Your task to perform on an android device: Open wifi settings Image 0: 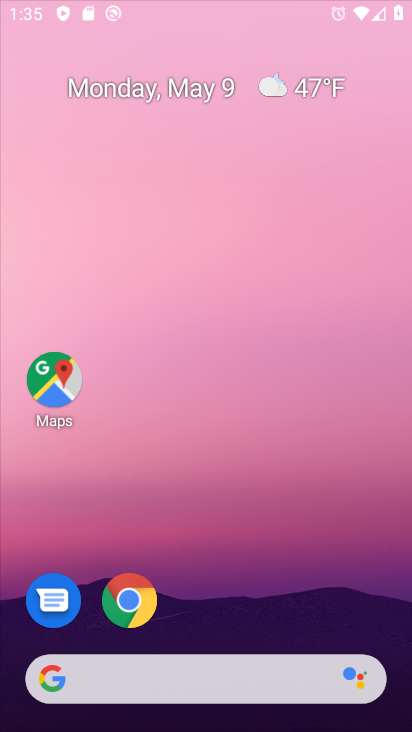
Step 0: click (108, 580)
Your task to perform on an android device: Open wifi settings Image 1: 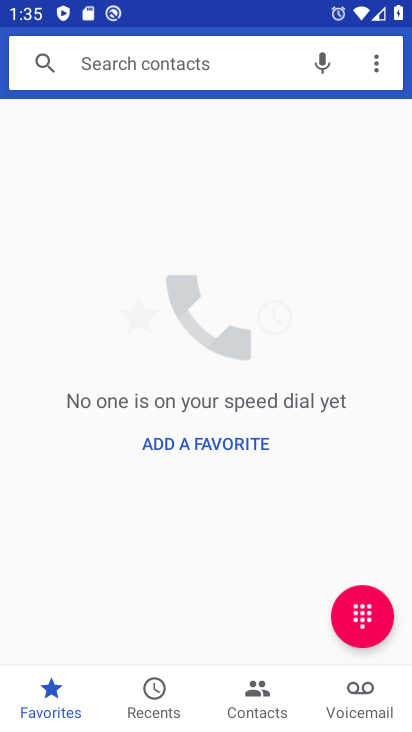
Step 1: press home button
Your task to perform on an android device: Open wifi settings Image 2: 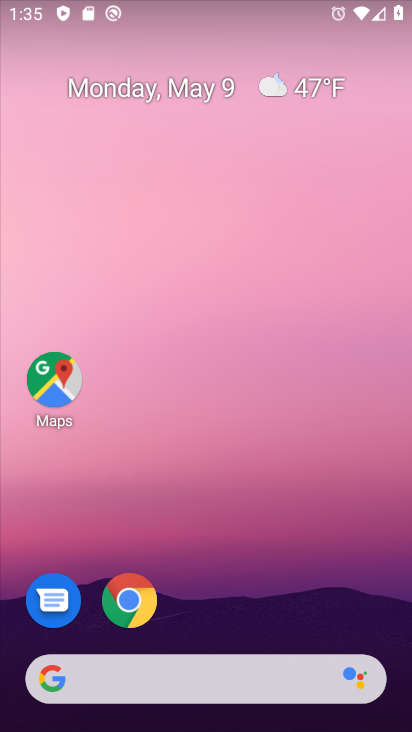
Step 2: drag from (195, 667) to (221, 147)
Your task to perform on an android device: Open wifi settings Image 3: 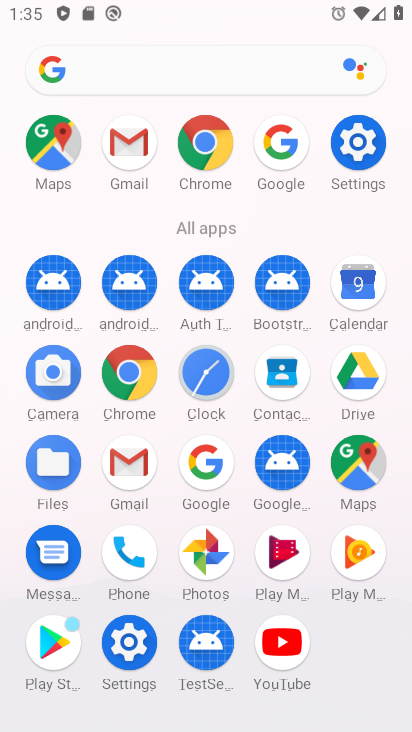
Step 3: click (345, 151)
Your task to perform on an android device: Open wifi settings Image 4: 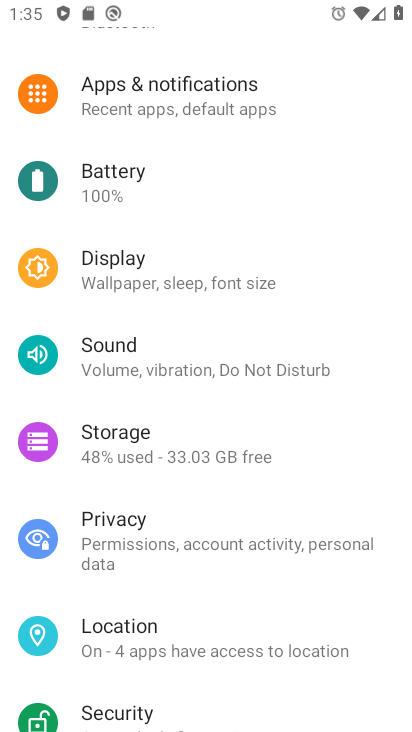
Step 4: drag from (137, 93) to (215, 383)
Your task to perform on an android device: Open wifi settings Image 5: 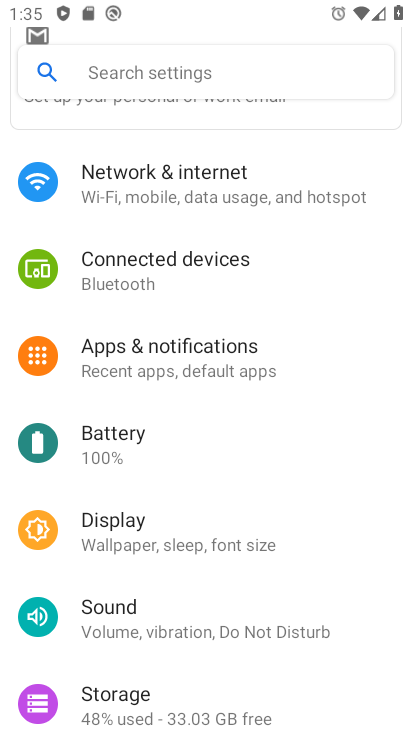
Step 5: click (197, 189)
Your task to perform on an android device: Open wifi settings Image 6: 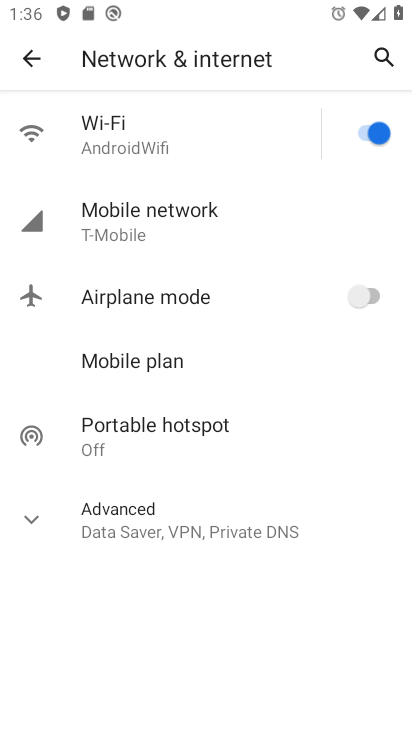
Step 6: click (148, 144)
Your task to perform on an android device: Open wifi settings Image 7: 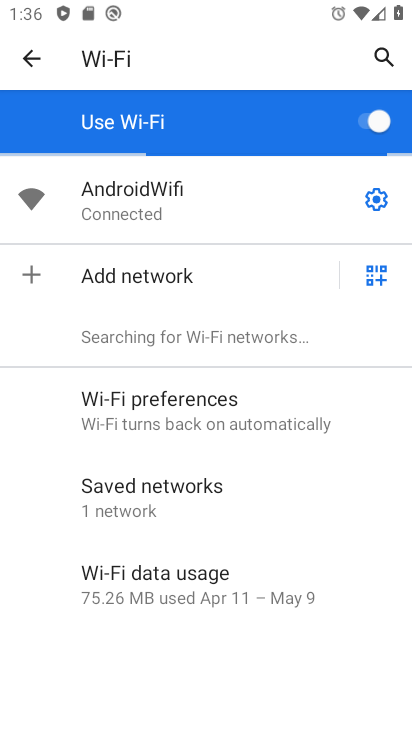
Step 7: task complete